Your task to perform on an android device: Go to sound settings Image 0: 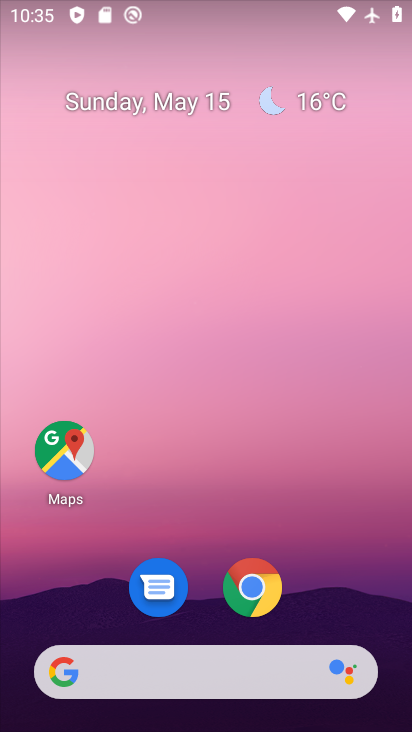
Step 0: drag from (336, 547) to (216, 26)
Your task to perform on an android device: Go to sound settings Image 1: 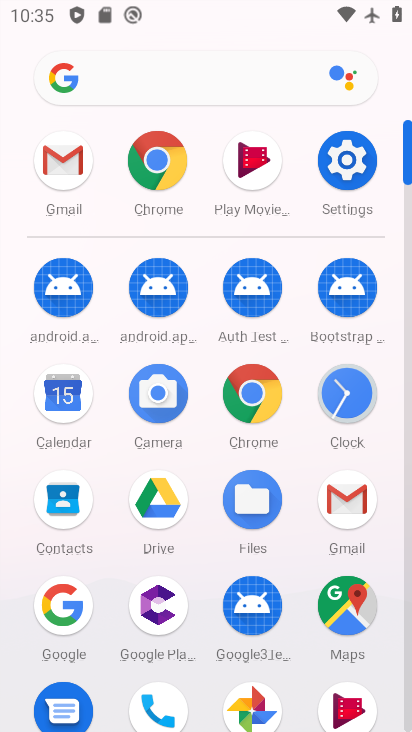
Step 1: click (351, 156)
Your task to perform on an android device: Go to sound settings Image 2: 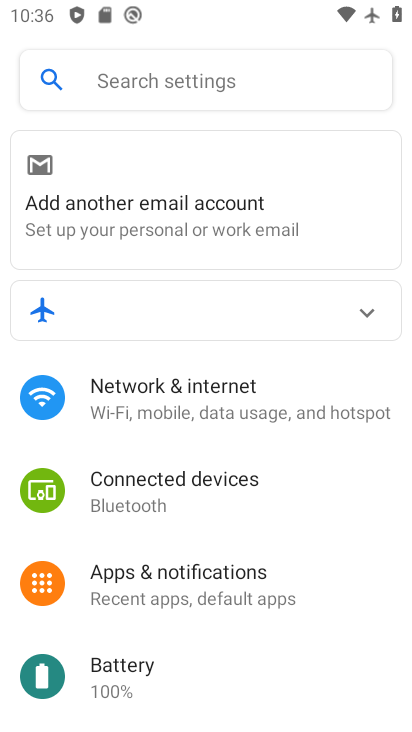
Step 2: drag from (250, 582) to (242, 158)
Your task to perform on an android device: Go to sound settings Image 3: 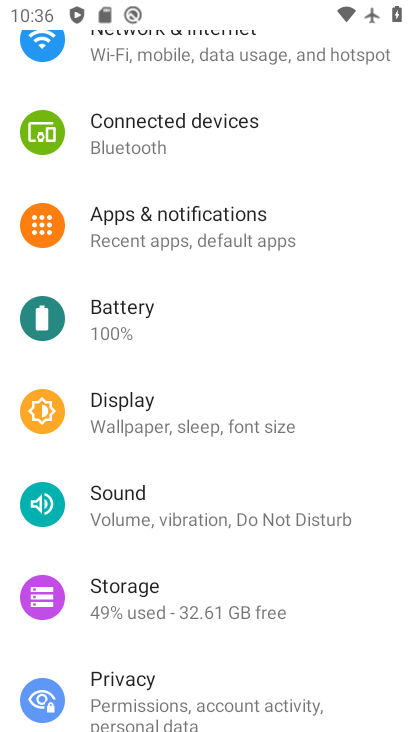
Step 3: click (149, 499)
Your task to perform on an android device: Go to sound settings Image 4: 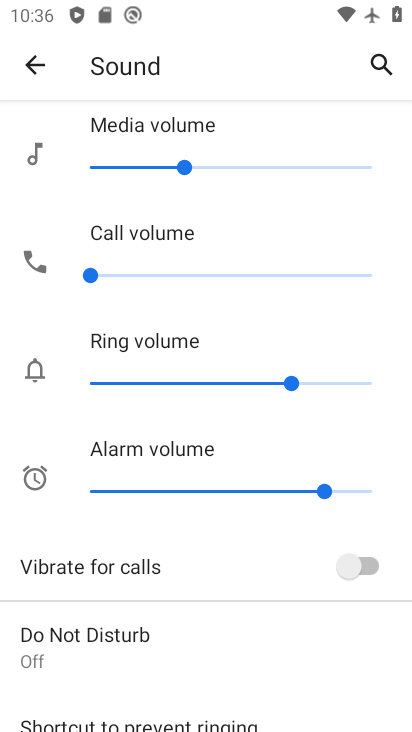
Step 4: task complete